Your task to perform on an android device: What is the recent news? Image 0: 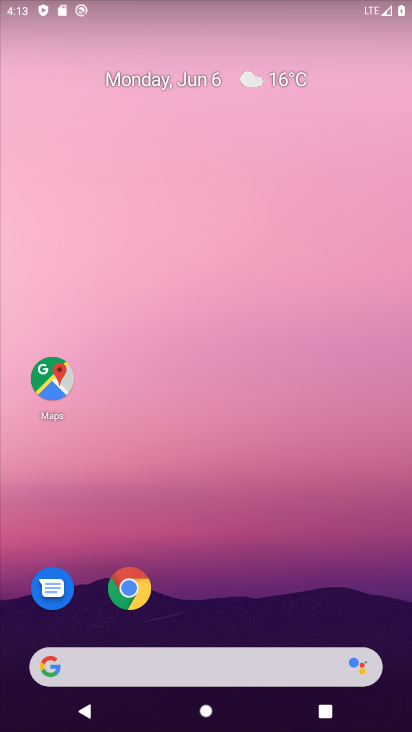
Step 0: click (358, 461)
Your task to perform on an android device: What is the recent news? Image 1: 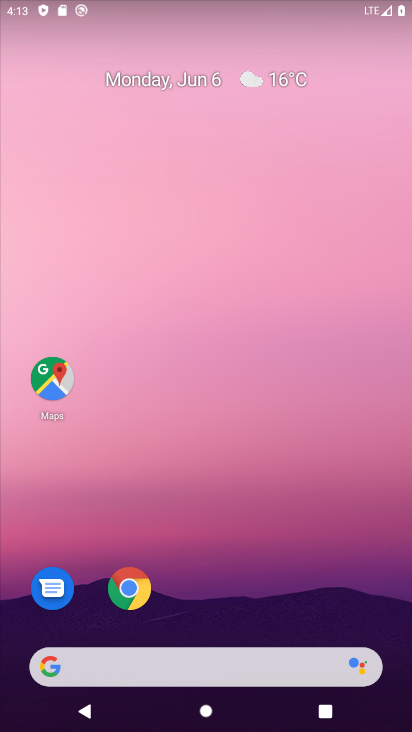
Step 1: drag from (206, 528) to (114, 207)
Your task to perform on an android device: What is the recent news? Image 2: 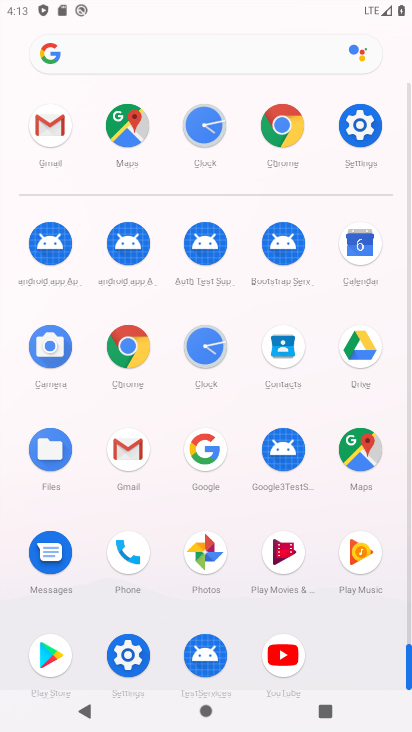
Step 2: drag from (38, 207) to (407, 362)
Your task to perform on an android device: What is the recent news? Image 3: 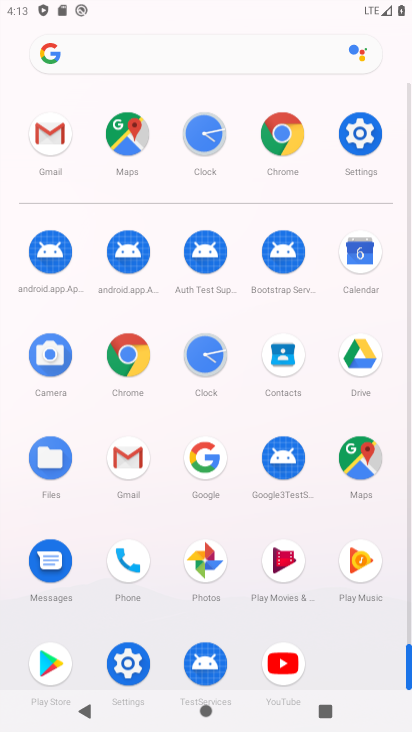
Step 3: press back button
Your task to perform on an android device: What is the recent news? Image 4: 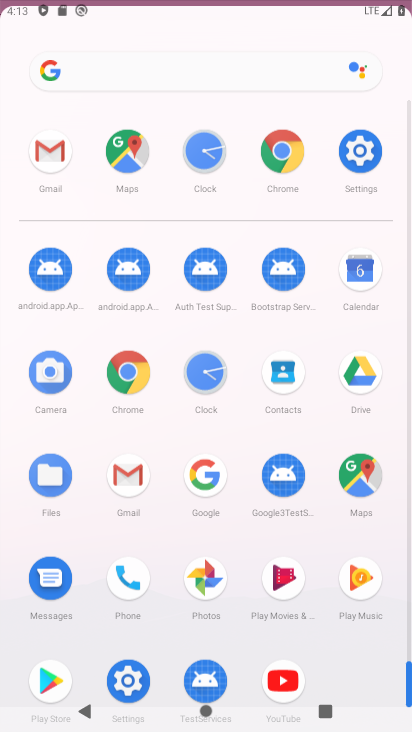
Step 4: drag from (407, 362) to (397, 398)
Your task to perform on an android device: What is the recent news? Image 5: 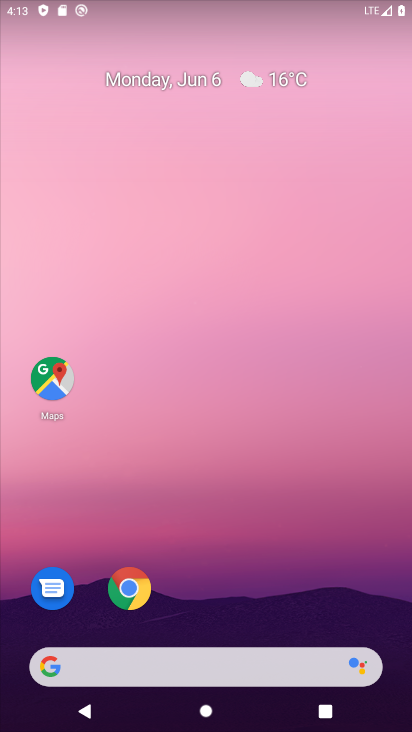
Step 5: click (309, 525)
Your task to perform on an android device: What is the recent news? Image 6: 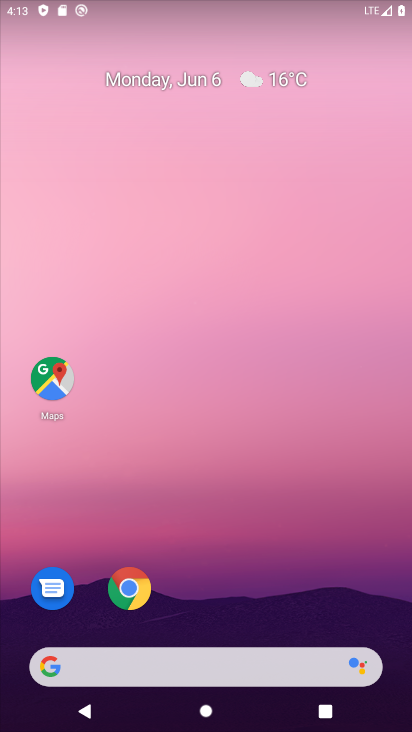
Step 6: task complete